Your task to perform on an android device: Is it going to rain today? Image 0: 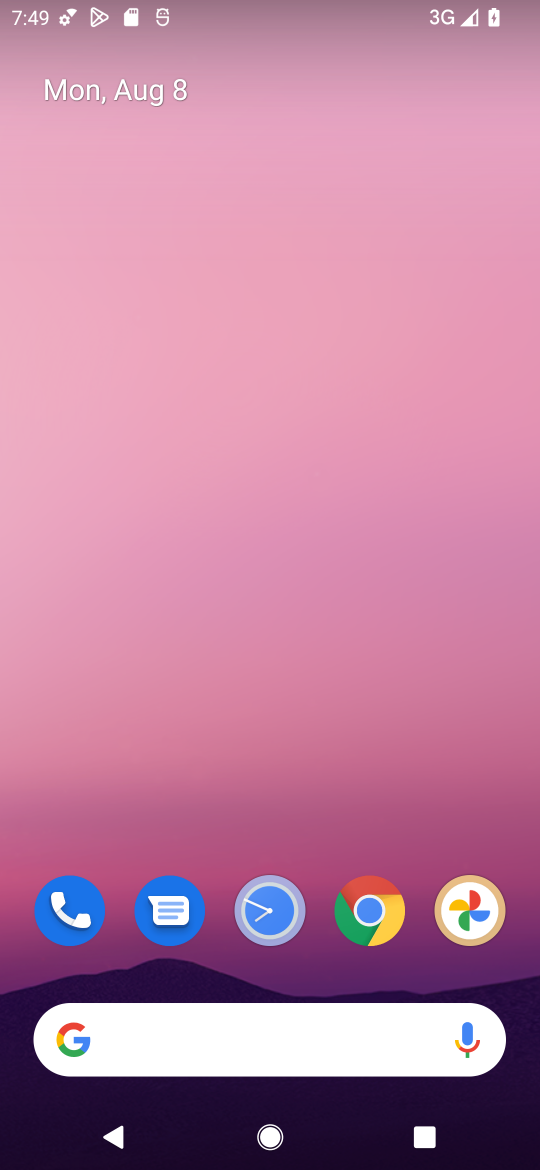
Step 0: click (252, 1028)
Your task to perform on an android device: Is it going to rain today? Image 1: 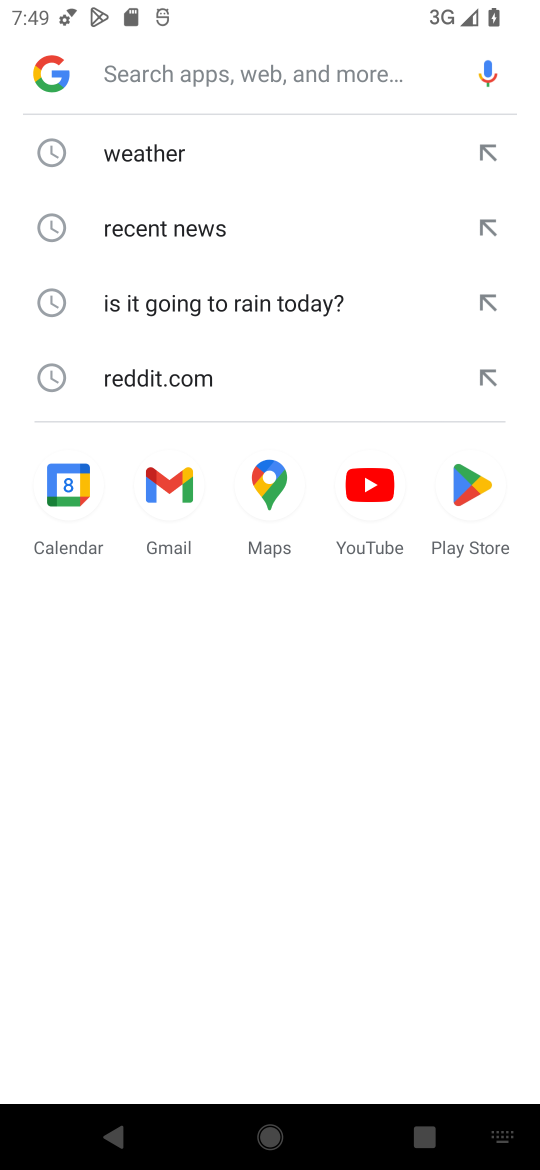
Step 1: click (238, 316)
Your task to perform on an android device: Is it going to rain today? Image 2: 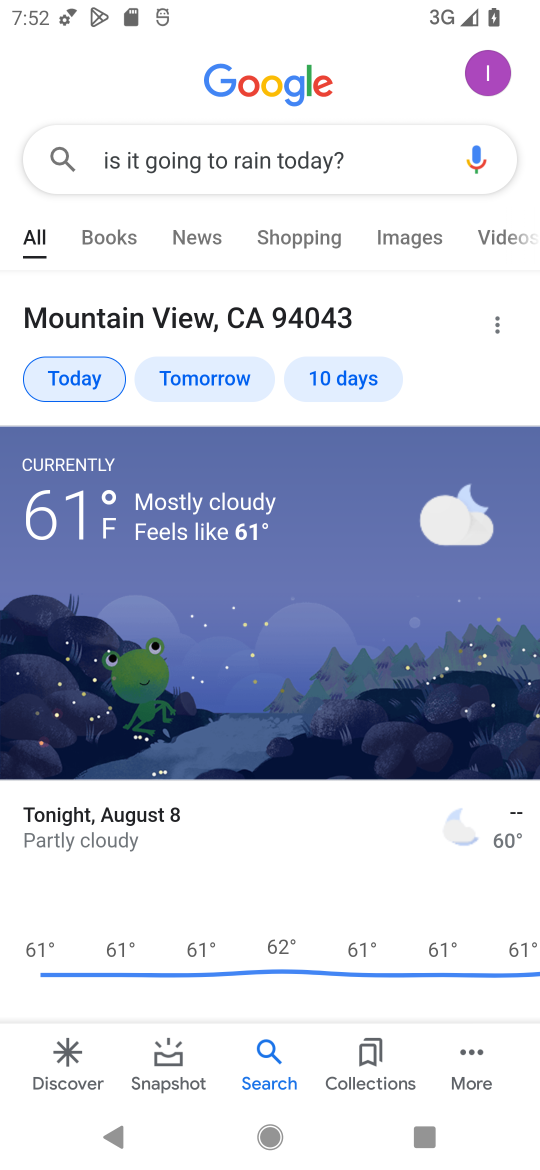
Step 2: task complete